Your task to perform on an android device: turn off improve location accuracy Image 0: 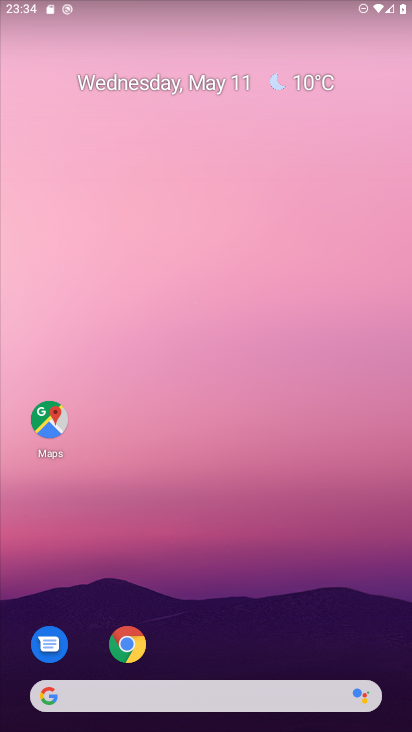
Step 0: drag from (340, 642) to (371, 18)
Your task to perform on an android device: turn off improve location accuracy Image 1: 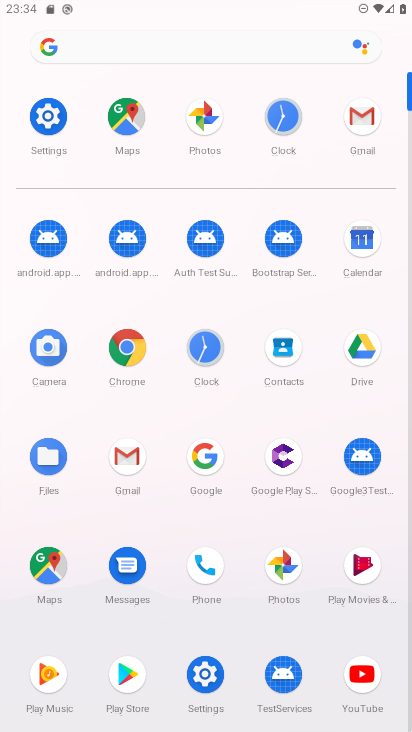
Step 1: click (34, 126)
Your task to perform on an android device: turn off improve location accuracy Image 2: 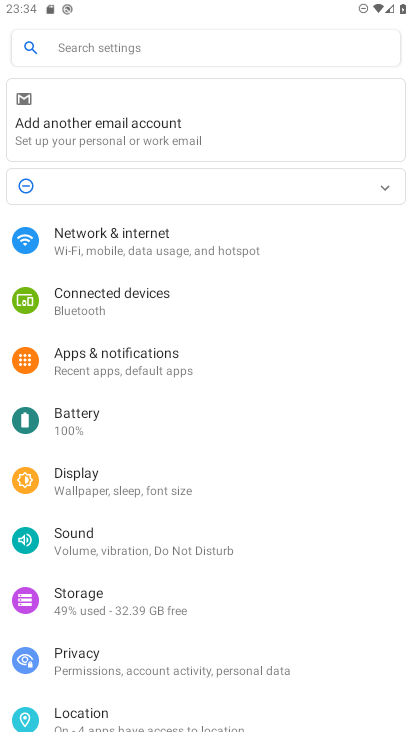
Step 2: click (94, 714)
Your task to perform on an android device: turn off improve location accuracy Image 3: 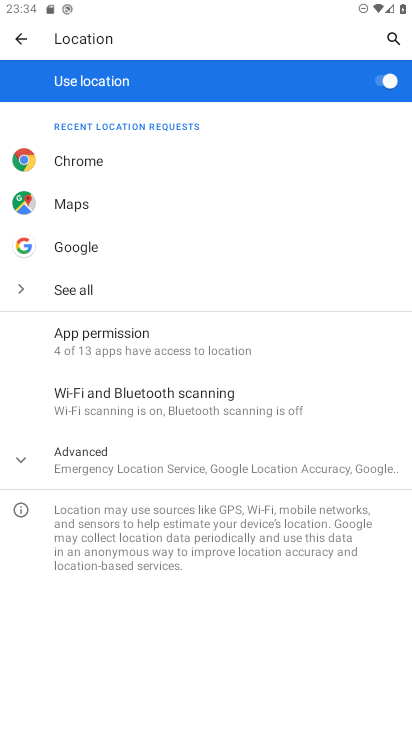
Step 3: click (13, 462)
Your task to perform on an android device: turn off improve location accuracy Image 4: 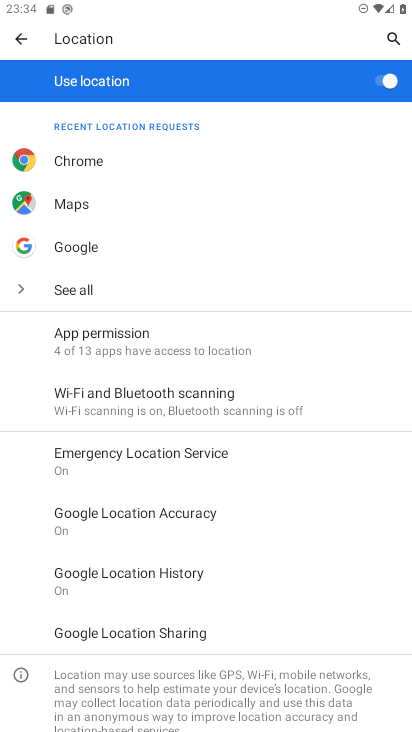
Step 4: click (92, 515)
Your task to perform on an android device: turn off improve location accuracy Image 5: 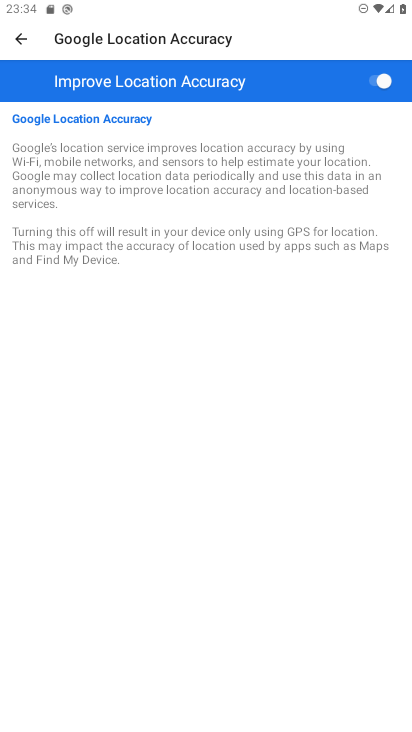
Step 5: click (387, 83)
Your task to perform on an android device: turn off improve location accuracy Image 6: 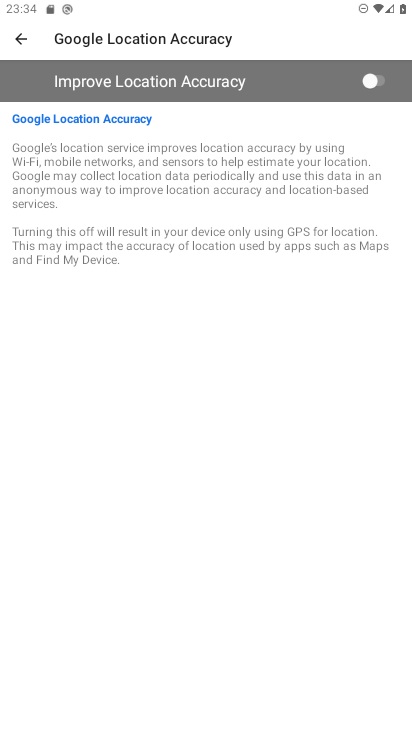
Step 6: task complete